Your task to perform on an android device: turn on improve location accuracy Image 0: 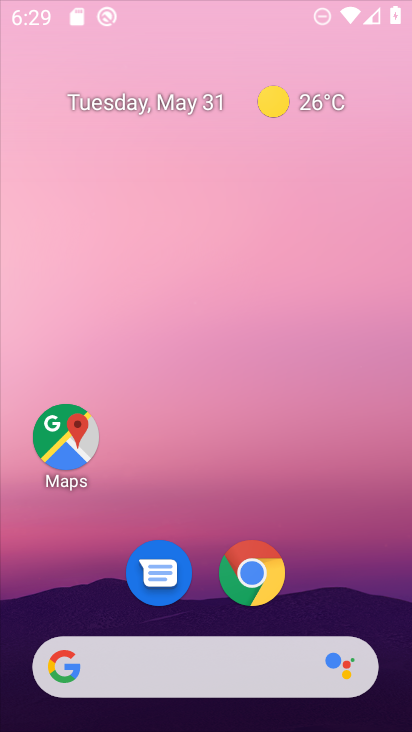
Step 0: drag from (398, 632) to (299, 100)
Your task to perform on an android device: turn on improve location accuracy Image 1: 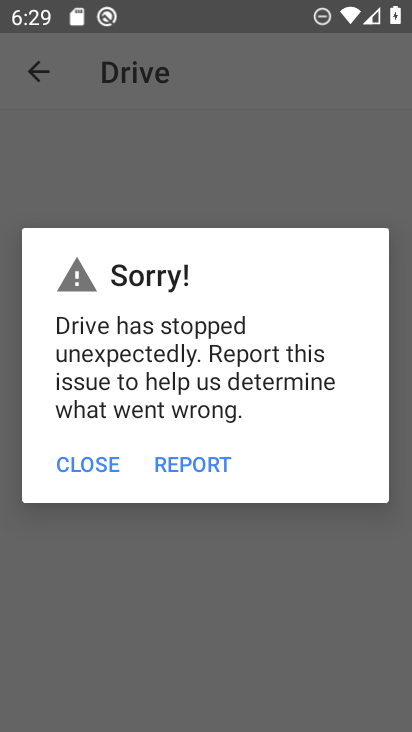
Step 1: press home button
Your task to perform on an android device: turn on improve location accuracy Image 2: 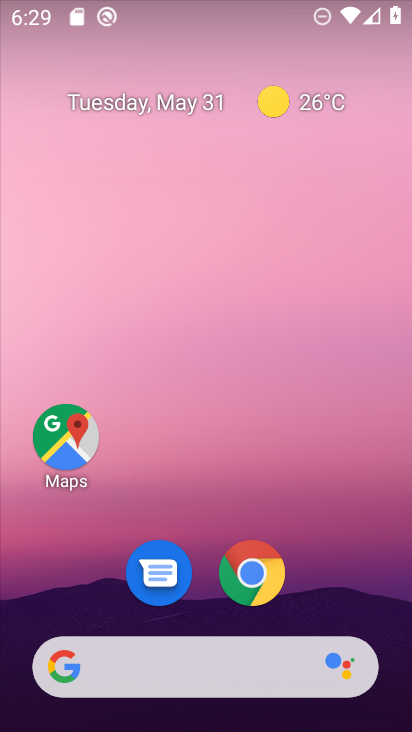
Step 2: drag from (371, 606) to (265, 31)
Your task to perform on an android device: turn on improve location accuracy Image 3: 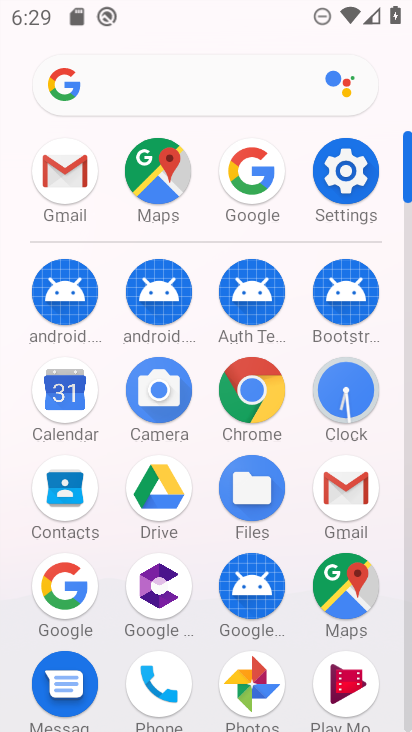
Step 3: click (344, 163)
Your task to perform on an android device: turn on improve location accuracy Image 4: 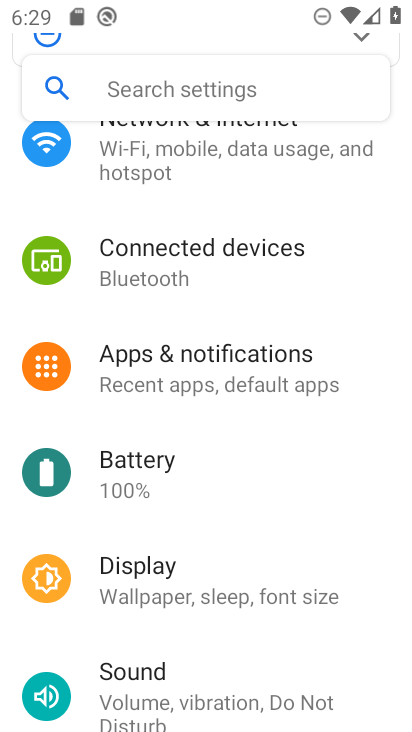
Step 4: drag from (195, 667) to (224, 201)
Your task to perform on an android device: turn on improve location accuracy Image 5: 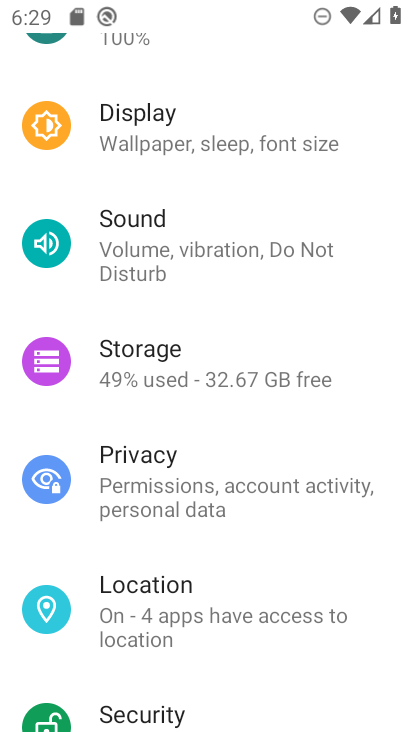
Step 5: click (153, 638)
Your task to perform on an android device: turn on improve location accuracy Image 6: 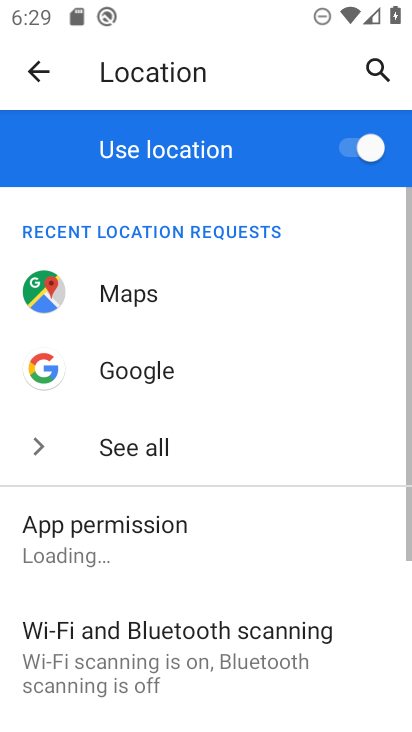
Step 6: drag from (184, 629) to (254, 114)
Your task to perform on an android device: turn on improve location accuracy Image 7: 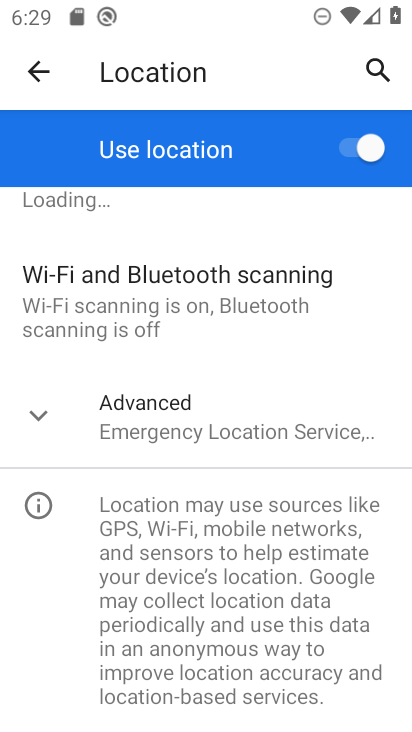
Step 7: click (138, 423)
Your task to perform on an android device: turn on improve location accuracy Image 8: 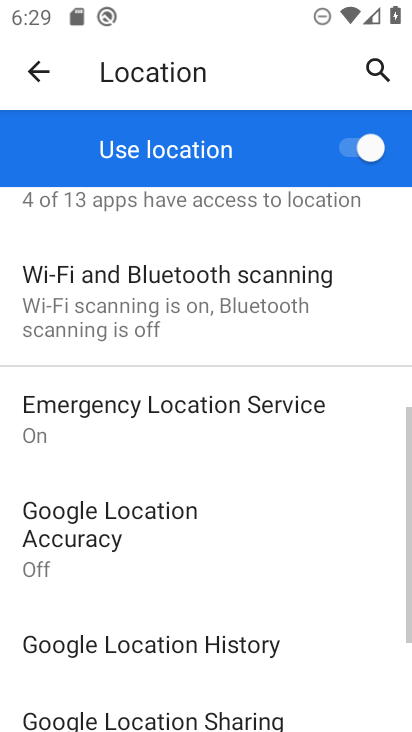
Step 8: click (166, 527)
Your task to perform on an android device: turn on improve location accuracy Image 9: 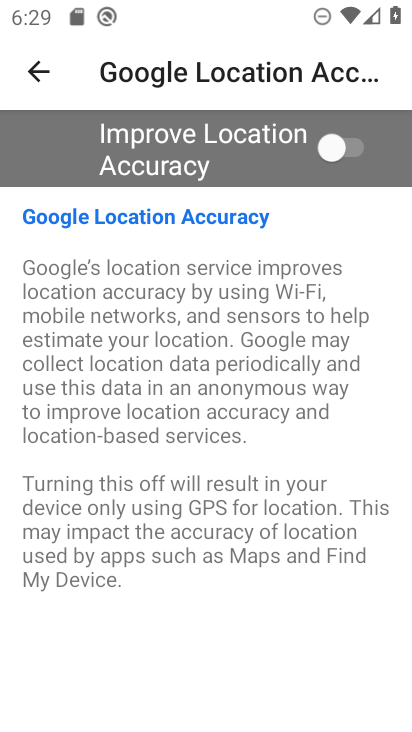
Step 9: click (363, 155)
Your task to perform on an android device: turn on improve location accuracy Image 10: 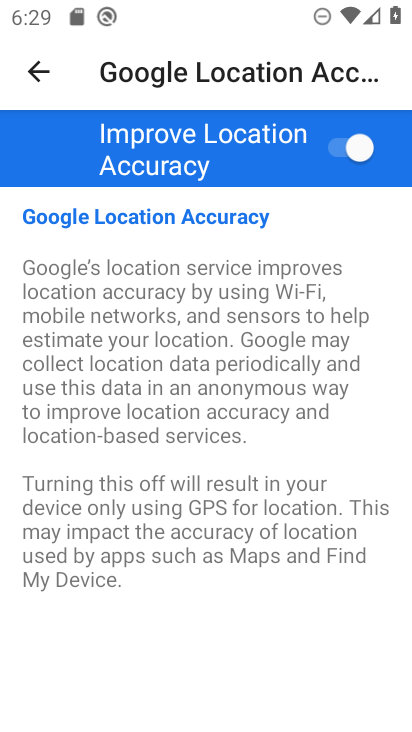
Step 10: task complete